Your task to perform on an android device: change the clock display to digital Image 0: 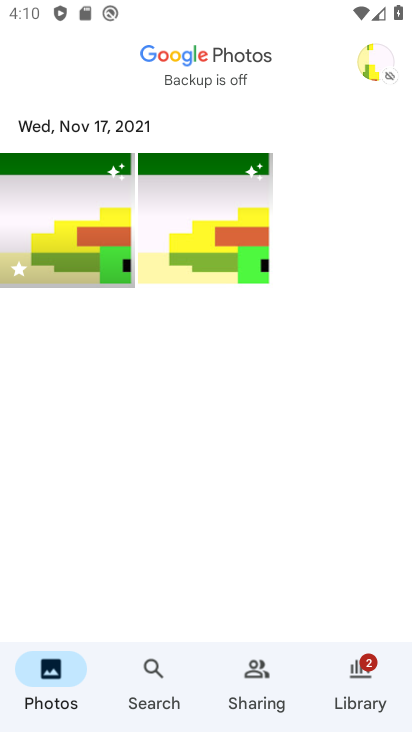
Step 0: press home button
Your task to perform on an android device: change the clock display to digital Image 1: 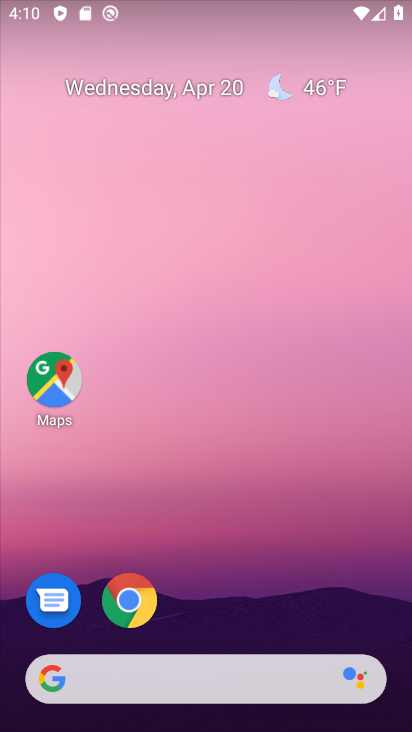
Step 1: drag from (218, 578) to (248, 111)
Your task to perform on an android device: change the clock display to digital Image 2: 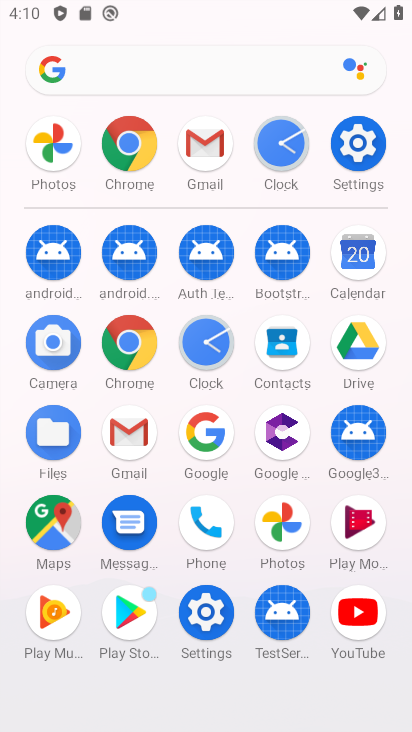
Step 2: click (286, 151)
Your task to perform on an android device: change the clock display to digital Image 3: 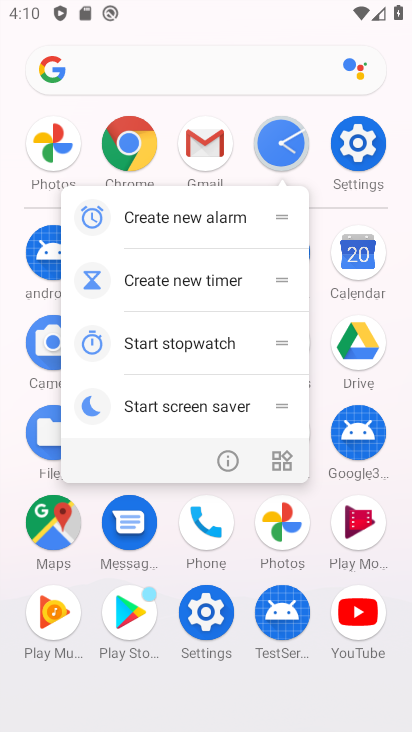
Step 3: click (274, 138)
Your task to perform on an android device: change the clock display to digital Image 4: 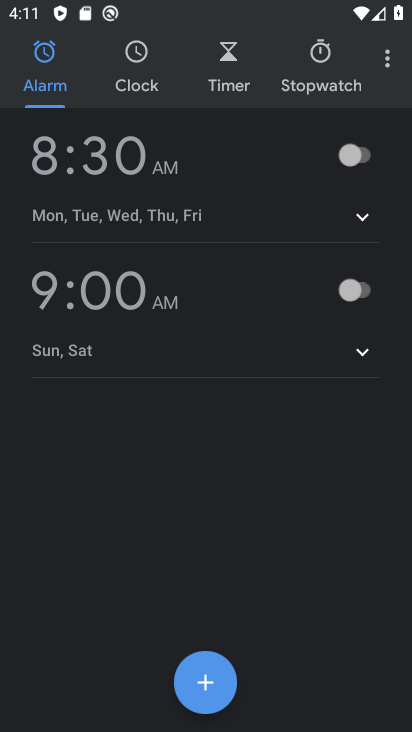
Step 4: click (389, 60)
Your task to perform on an android device: change the clock display to digital Image 5: 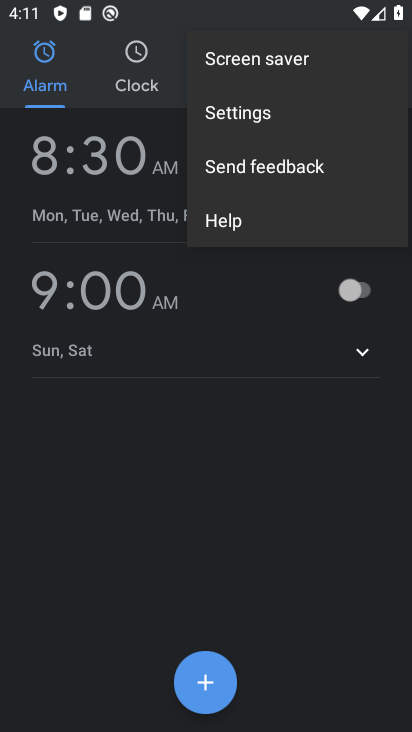
Step 5: click (289, 120)
Your task to perform on an android device: change the clock display to digital Image 6: 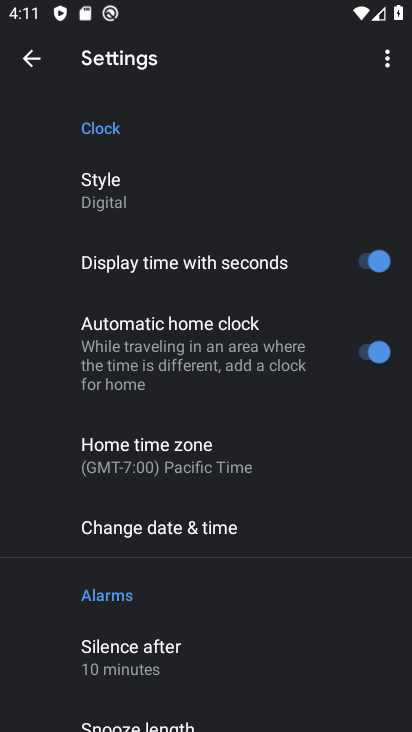
Step 6: click (130, 186)
Your task to perform on an android device: change the clock display to digital Image 7: 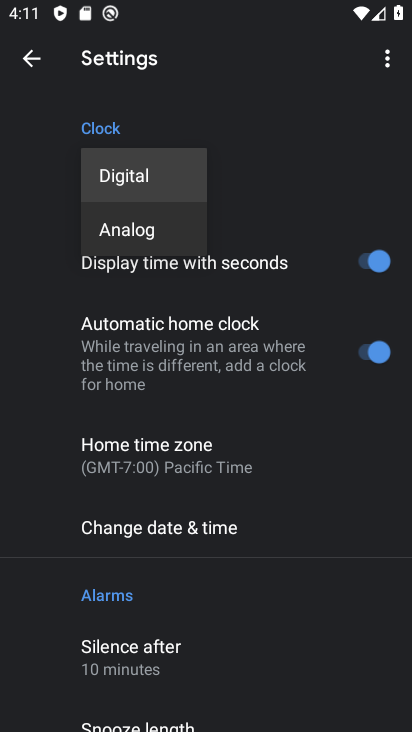
Step 7: click (181, 174)
Your task to perform on an android device: change the clock display to digital Image 8: 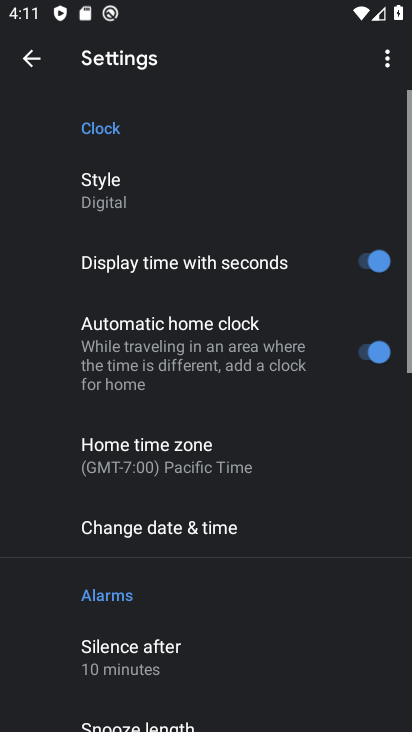
Step 8: task complete